Your task to perform on an android device: Open the calendar app, open the side menu, and click the "Day" option Image 0: 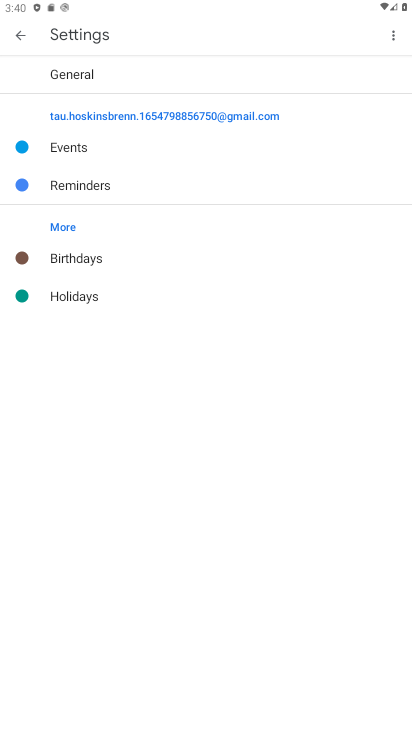
Step 0: click (23, 31)
Your task to perform on an android device: Open the calendar app, open the side menu, and click the "Day" option Image 1: 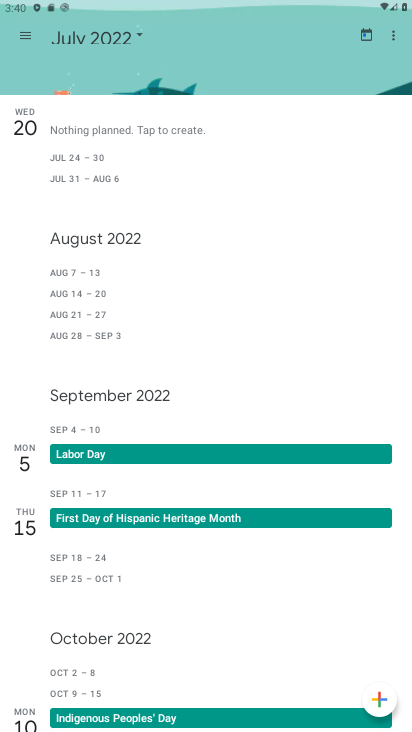
Step 1: click (29, 39)
Your task to perform on an android device: Open the calendar app, open the side menu, and click the "Day" option Image 2: 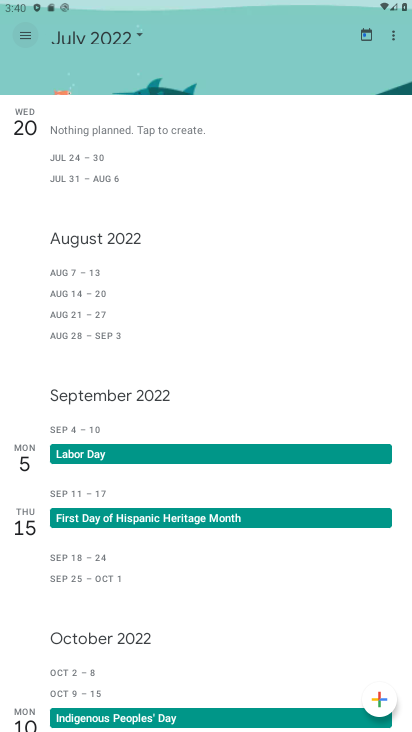
Step 2: click (29, 40)
Your task to perform on an android device: Open the calendar app, open the side menu, and click the "Day" option Image 3: 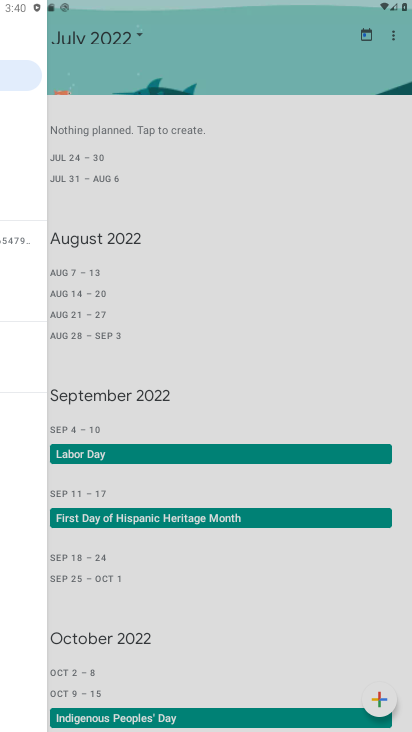
Step 3: click (29, 40)
Your task to perform on an android device: Open the calendar app, open the side menu, and click the "Day" option Image 4: 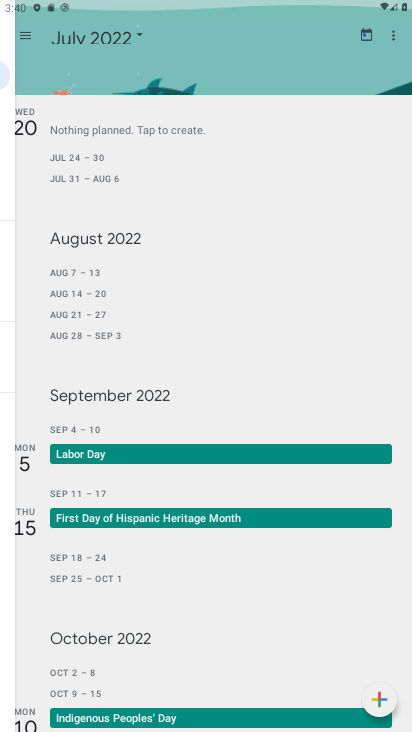
Step 4: click (29, 40)
Your task to perform on an android device: Open the calendar app, open the side menu, and click the "Day" option Image 5: 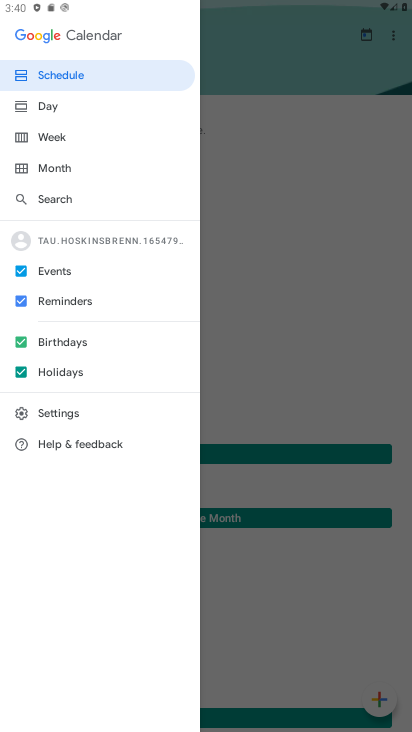
Step 5: click (48, 114)
Your task to perform on an android device: Open the calendar app, open the side menu, and click the "Day" option Image 6: 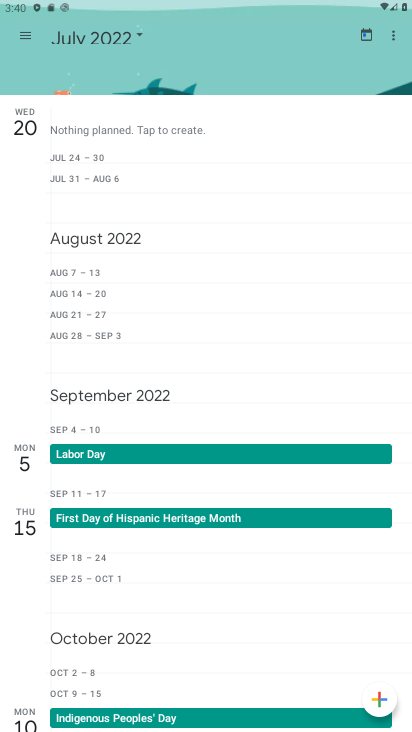
Step 6: click (51, 110)
Your task to perform on an android device: Open the calendar app, open the side menu, and click the "Day" option Image 7: 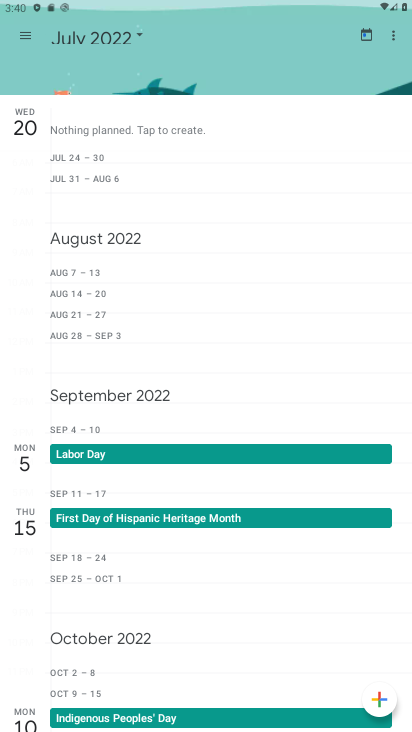
Step 7: click (51, 110)
Your task to perform on an android device: Open the calendar app, open the side menu, and click the "Day" option Image 8: 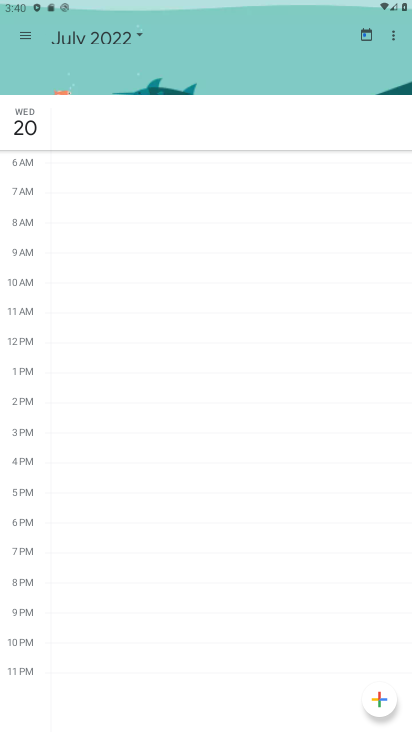
Step 8: task complete